Your task to perform on an android device: Open Yahoo.com Image 0: 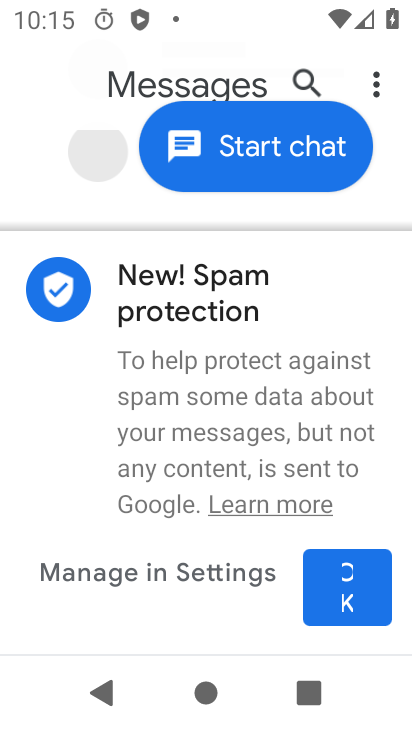
Step 0: press home button
Your task to perform on an android device: Open Yahoo.com Image 1: 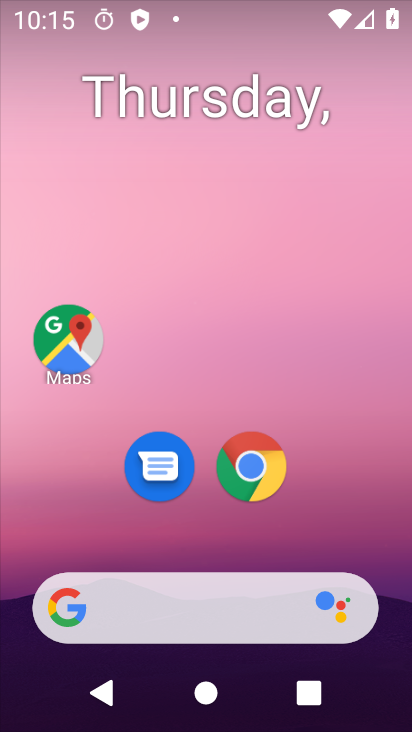
Step 1: drag from (173, 613) to (334, 151)
Your task to perform on an android device: Open Yahoo.com Image 2: 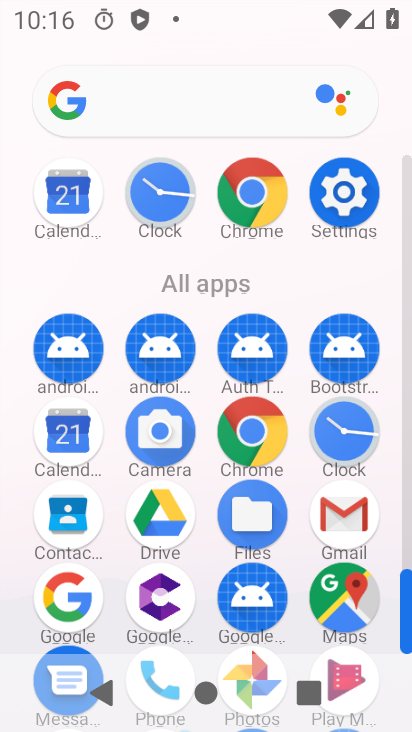
Step 2: click (249, 215)
Your task to perform on an android device: Open Yahoo.com Image 3: 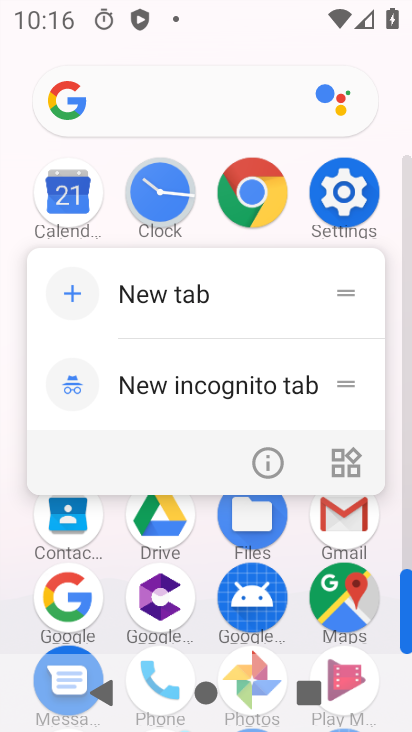
Step 3: click (265, 196)
Your task to perform on an android device: Open Yahoo.com Image 4: 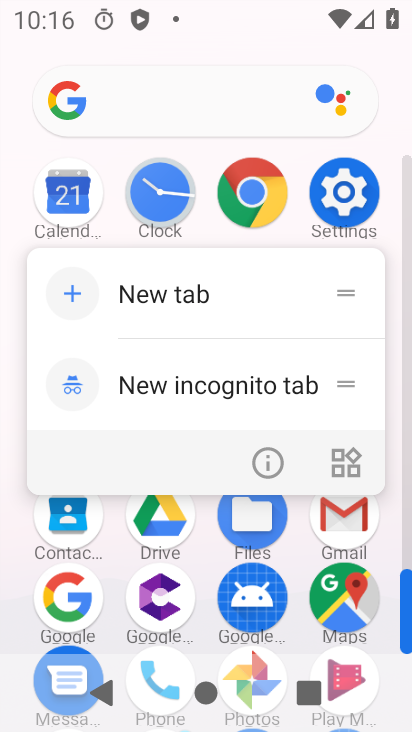
Step 4: click (261, 192)
Your task to perform on an android device: Open Yahoo.com Image 5: 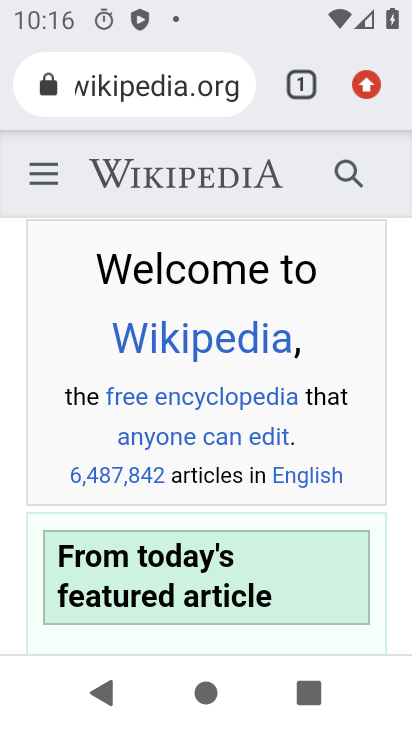
Step 5: click (362, 94)
Your task to perform on an android device: Open Yahoo.com Image 6: 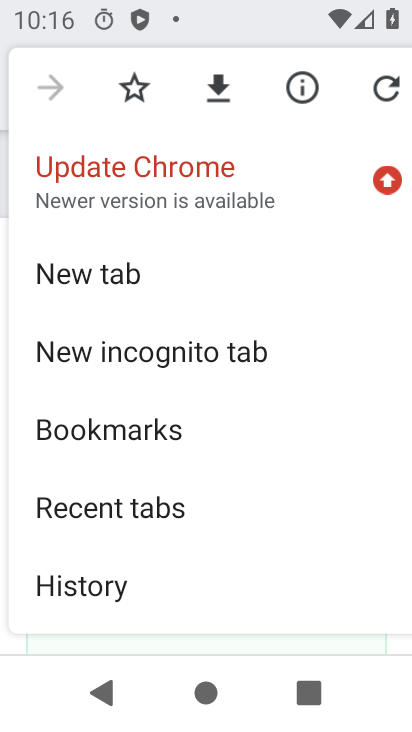
Step 6: click (92, 268)
Your task to perform on an android device: Open Yahoo.com Image 7: 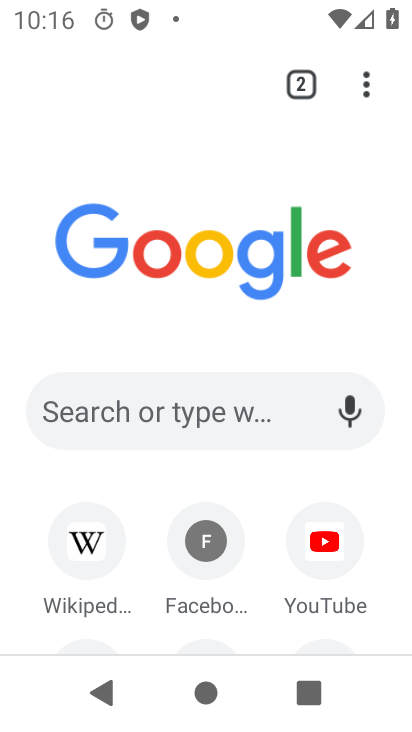
Step 7: drag from (162, 491) to (270, 179)
Your task to perform on an android device: Open Yahoo.com Image 8: 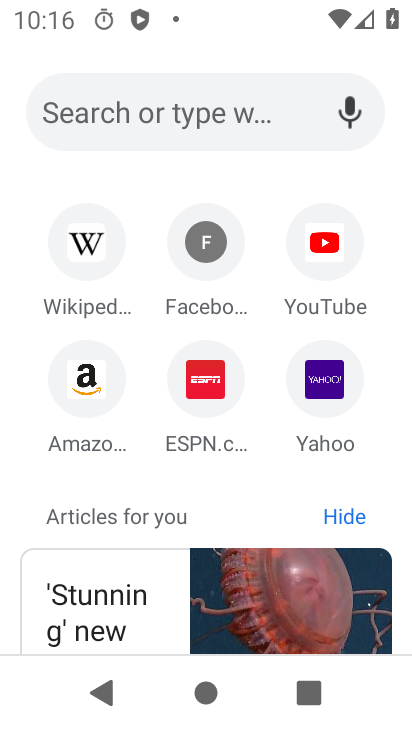
Step 8: click (338, 400)
Your task to perform on an android device: Open Yahoo.com Image 9: 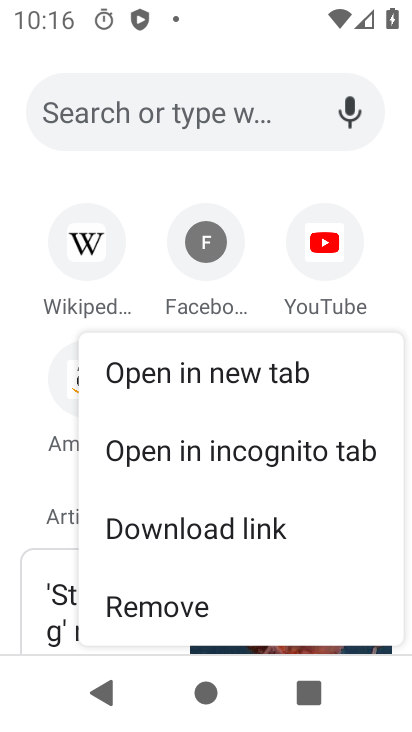
Step 9: drag from (256, 272) to (320, 159)
Your task to perform on an android device: Open Yahoo.com Image 10: 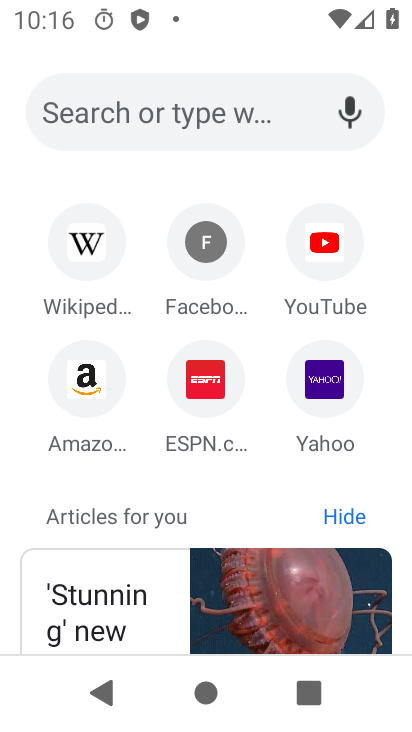
Step 10: click (319, 377)
Your task to perform on an android device: Open Yahoo.com Image 11: 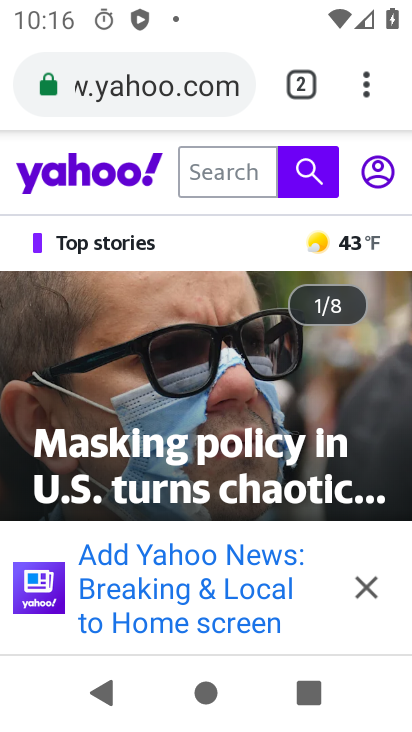
Step 11: drag from (113, 611) to (389, 227)
Your task to perform on an android device: Open Yahoo.com Image 12: 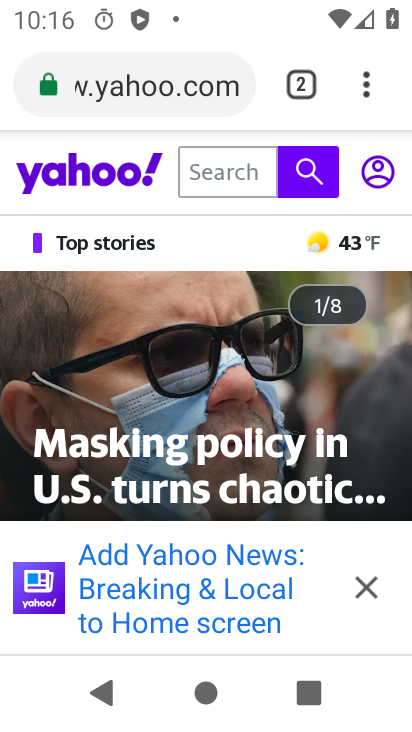
Step 12: click (372, 582)
Your task to perform on an android device: Open Yahoo.com Image 13: 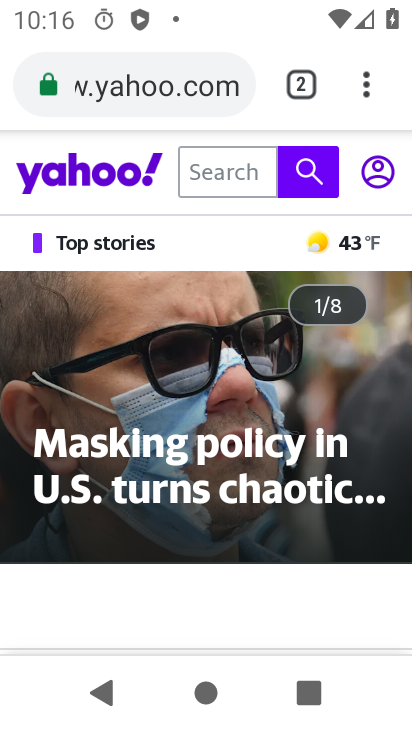
Step 13: task complete